Your task to perform on an android device: How big is the sun? Image 0: 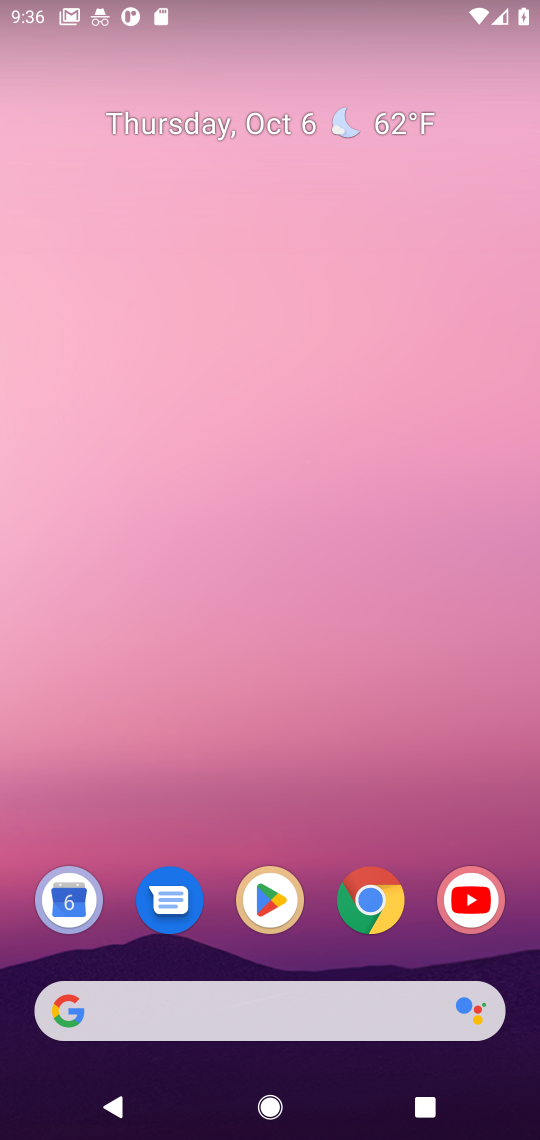
Step 0: click (299, 1011)
Your task to perform on an android device: How big is the sun? Image 1: 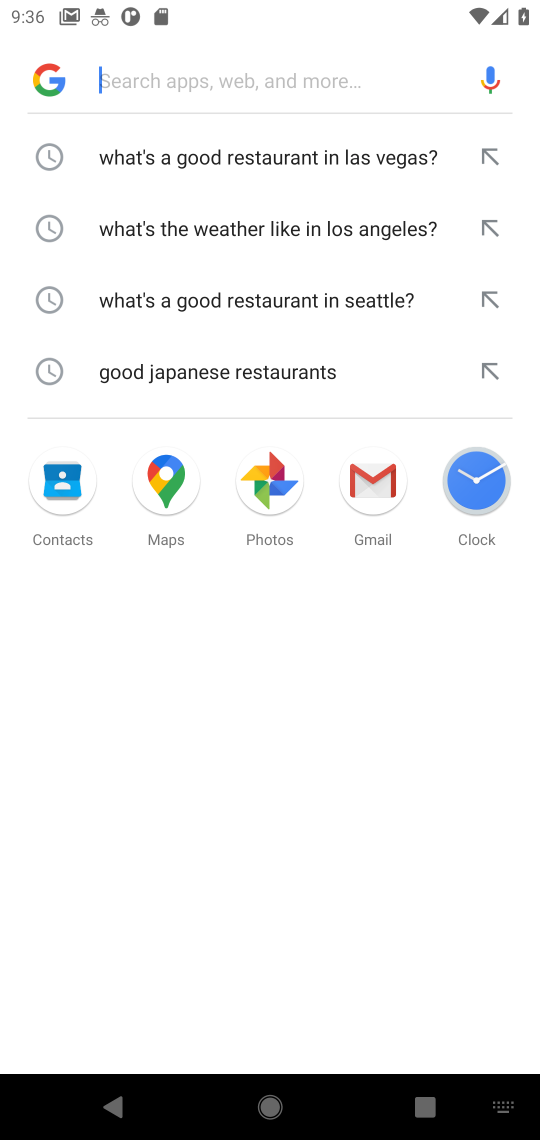
Step 1: type "How big is the sun?"
Your task to perform on an android device: How big is the sun? Image 2: 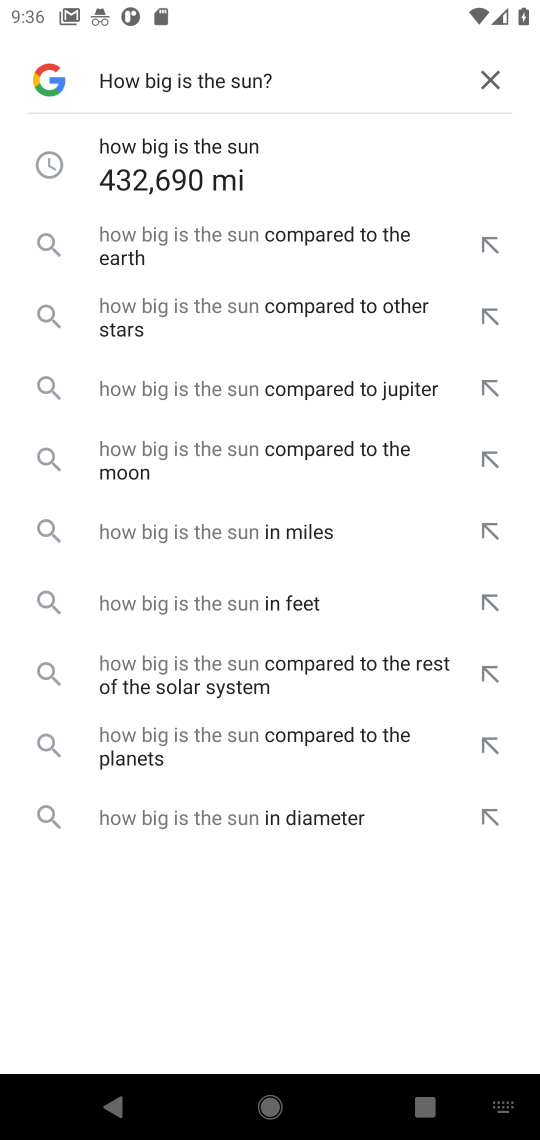
Step 2: press enter
Your task to perform on an android device: How big is the sun? Image 3: 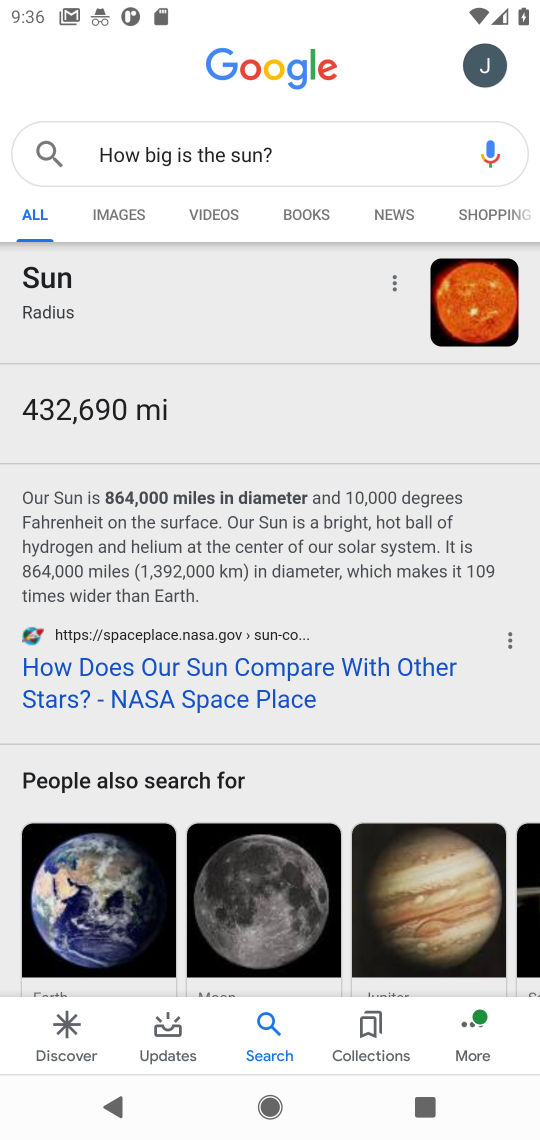
Step 3: task complete